Your task to perform on an android device: delete browsing data in the chrome app Image 0: 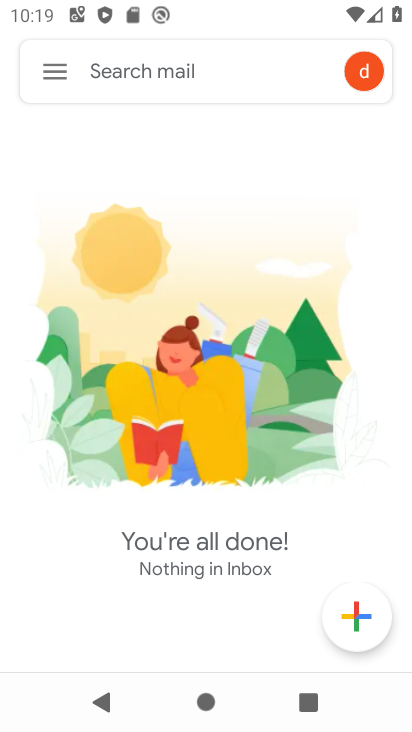
Step 0: press home button
Your task to perform on an android device: delete browsing data in the chrome app Image 1: 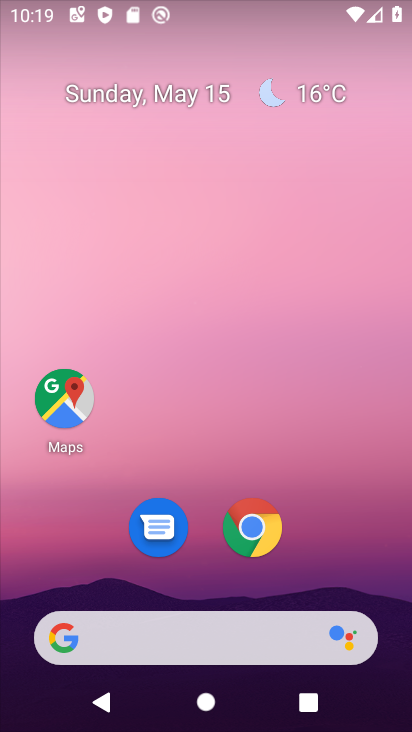
Step 1: click (313, 563)
Your task to perform on an android device: delete browsing data in the chrome app Image 2: 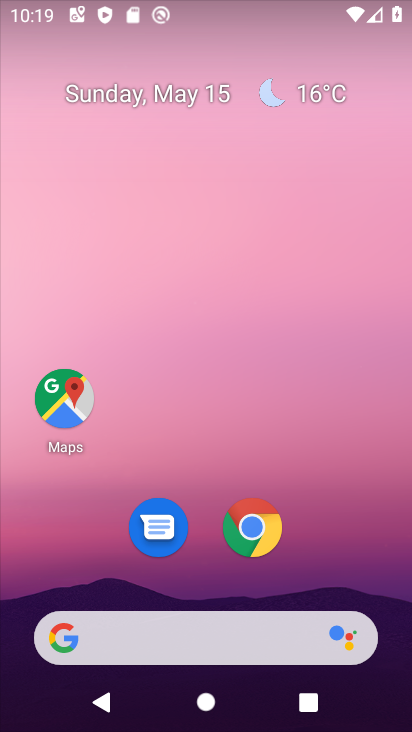
Step 2: click (249, 524)
Your task to perform on an android device: delete browsing data in the chrome app Image 3: 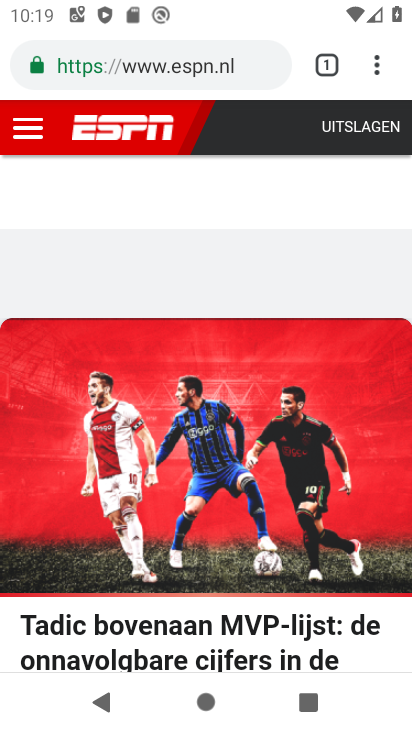
Step 3: click (376, 66)
Your task to perform on an android device: delete browsing data in the chrome app Image 4: 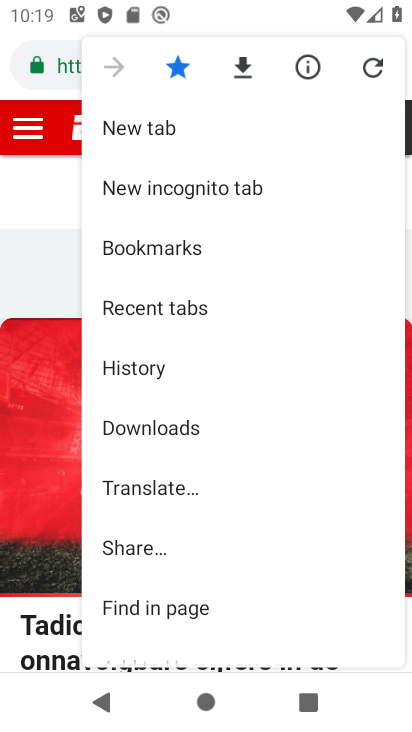
Step 4: drag from (252, 576) to (217, 158)
Your task to perform on an android device: delete browsing data in the chrome app Image 5: 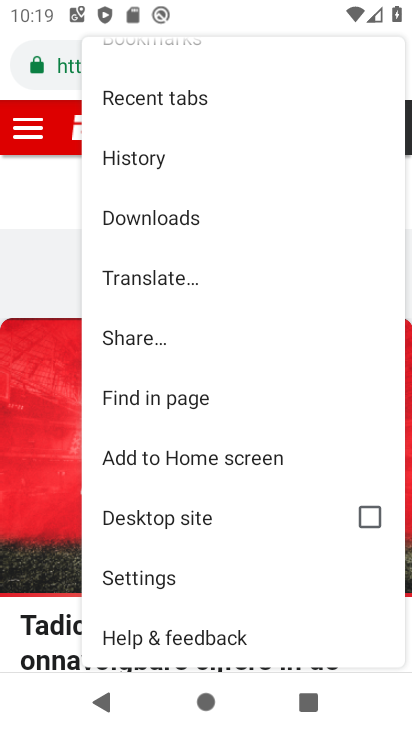
Step 5: drag from (273, 565) to (254, 240)
Your task to perform on an android device: delete browsing data in the chrome app Image 6: 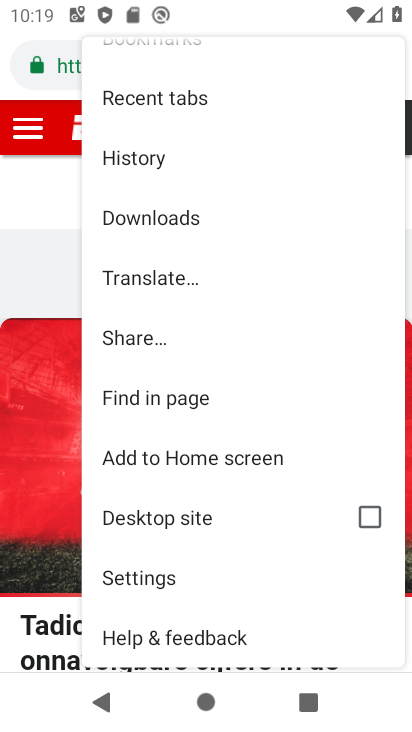
Step 6: click (128, 579)
Your task to perform on an android device: delete browsing data in the chrome app Image 7: 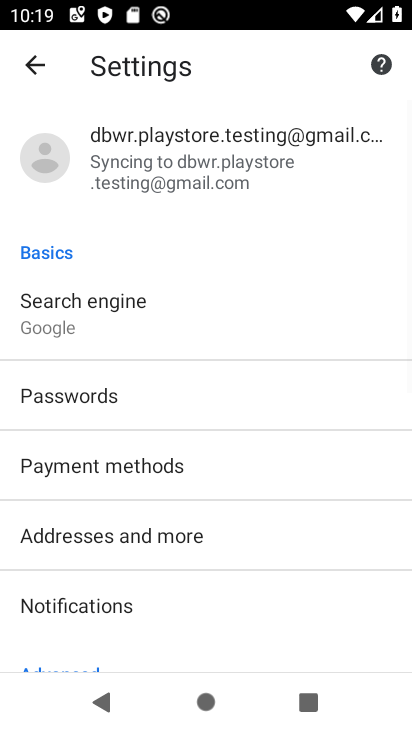
Step 7: drag from (261, 566) to (270, 280)
Your task to perform on an android device: delete browsing data in the chrome app Image 8: 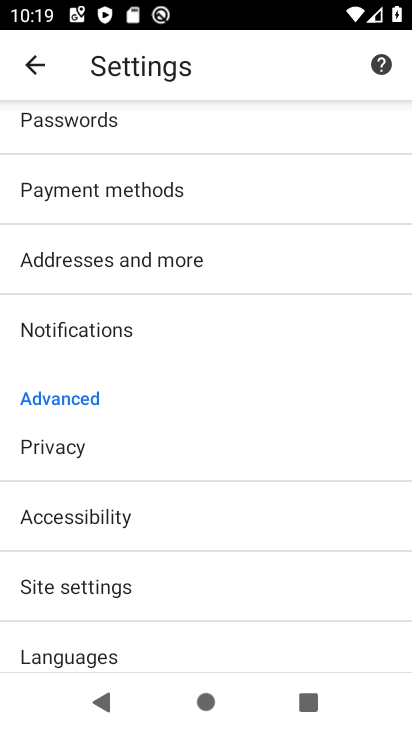
Step 8: click (37, 451)
Your task to perform on an android device: delete browsing data in the chrome app Image 9: 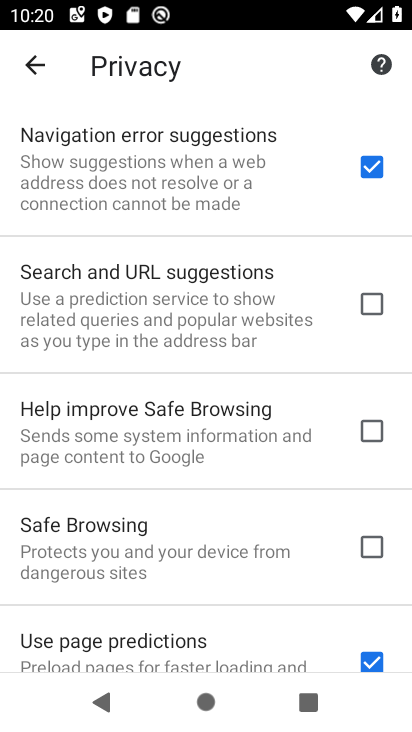
Step 9: drag from (194, 623) to (156, 172)
Your task to perform on an android device: delete browsing data in the chrome app Image 10: 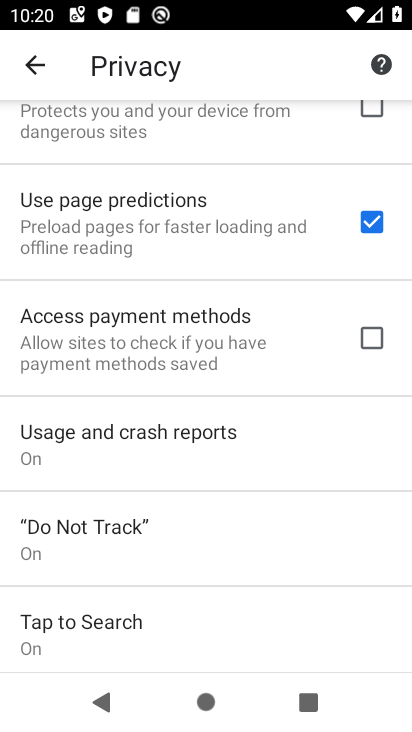
Step 10: drag from (199, 561) to (182, 137)
Your task to perform on an android device: delete browsing data in the chrome app Image 11: 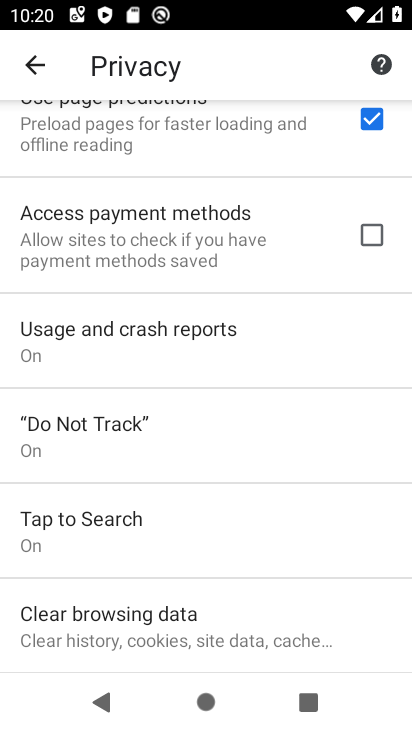
Step 11: click (117, 623)
Your task to perform on an android device: delete browsing data in the chrome app Image 12: 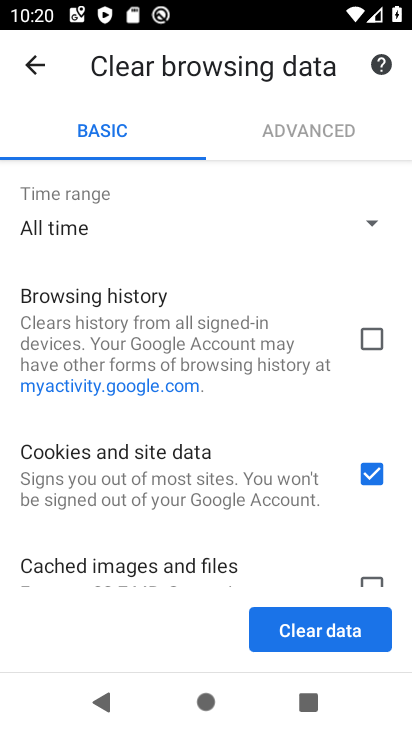
Step 12: click (362, 343)
Your task to perform on an android device: delete browsing data in the chrome app Image 13: 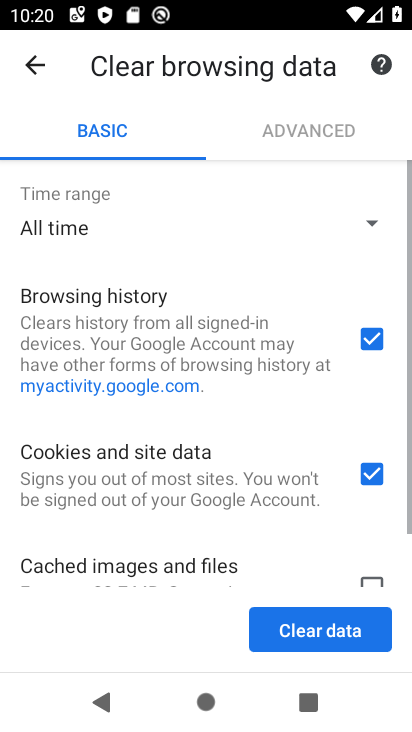
Step 13: click (363, 481)
Your task to perform on an android device: delete browsing data in the chrome app Image 14: 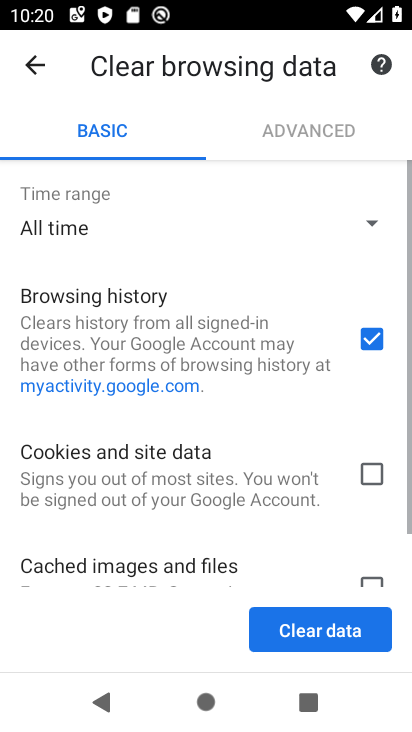
Step 14: drag from (190, 516) to (153, 213)
Your task to perform on an android device: delete browsing data in the chrome app Image 15: 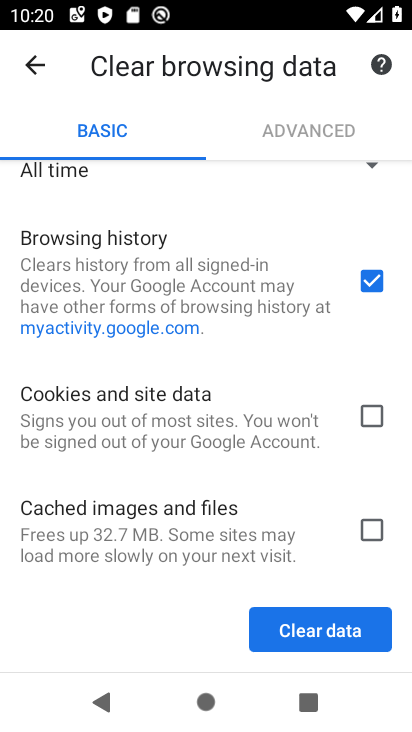
Step 15: click (317, 627)
Your task to perform on an android device: delete browsing data in the chrome app Image 16: 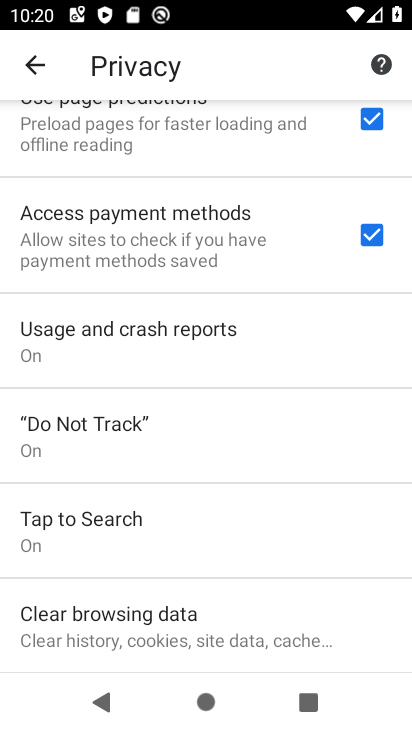
Step 16: task complete